Your task to perform on an android device: open chrome privacy settings Image 0: 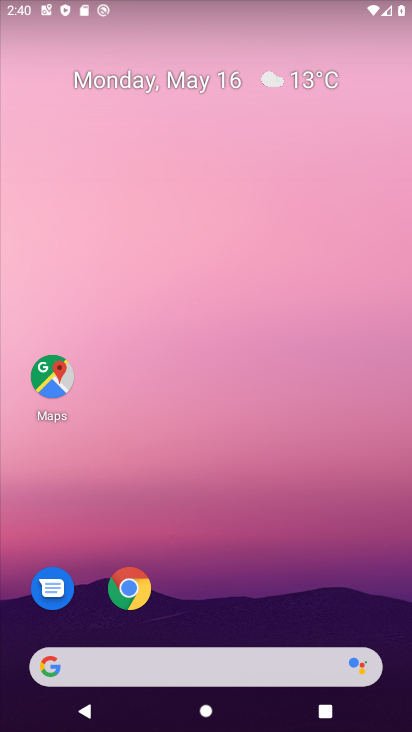
Step 0: drag from (298, 654) to (348, 5)
Your task to perform on an android device: open chrome privacy settings Image 1: 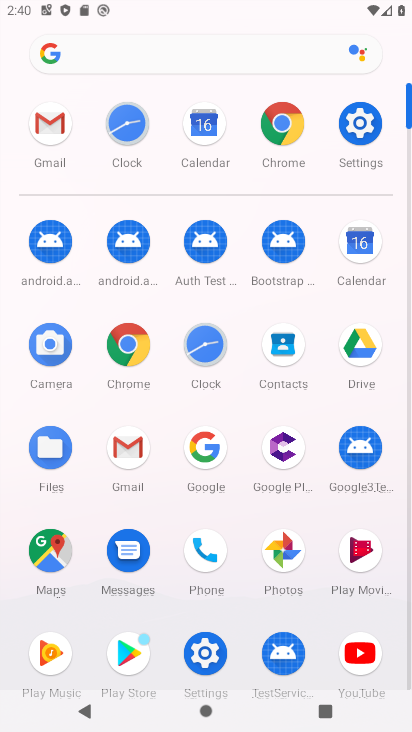
Step 1: click (360, 111)
Your task to perform on an android device: open chrome privacy settings Image 2: 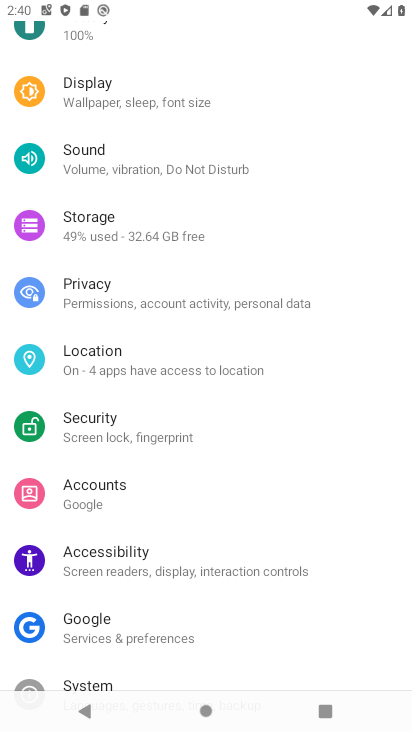
Step 2: press home button
Your task to perform on an android device: open chrome privacy settings Image 3: 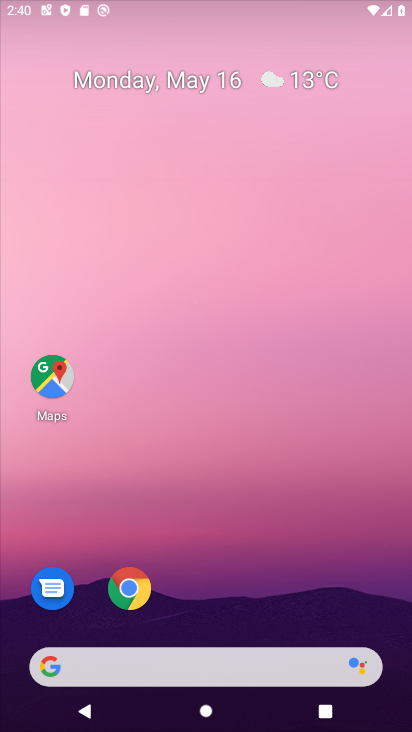
Step 3: drag from (270, 565) to (255, 1)
Your task to perform on an android device: open chrome privacy settings Image 4: 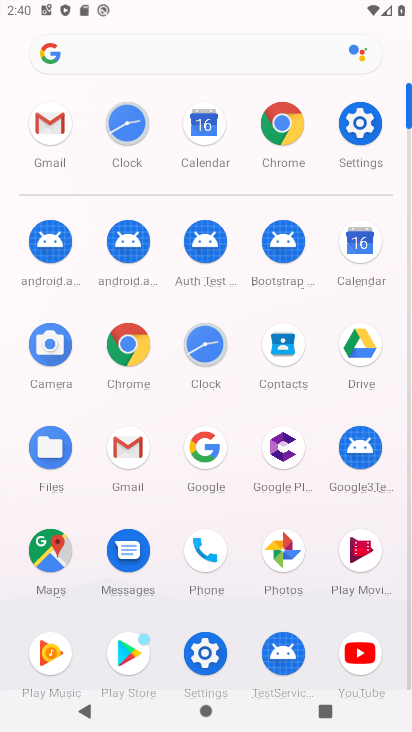
Step 4: click (133, 364)
Your task to perform on an android device: open chrome privacy settings Image 5: 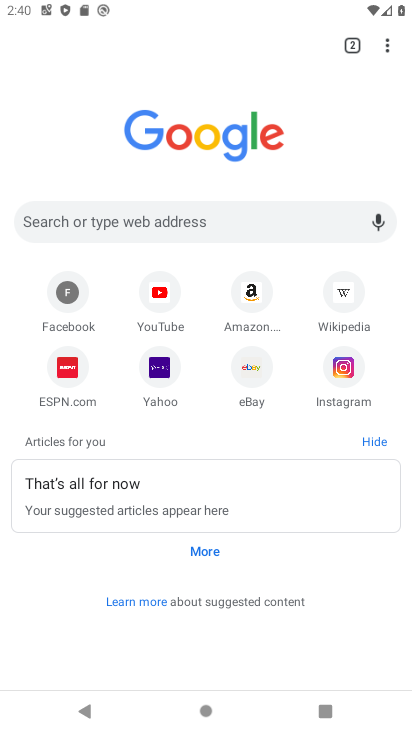
Step 5: click (386, 39)
Your task to perform on an android device: open chrome privacy settings Image 6: 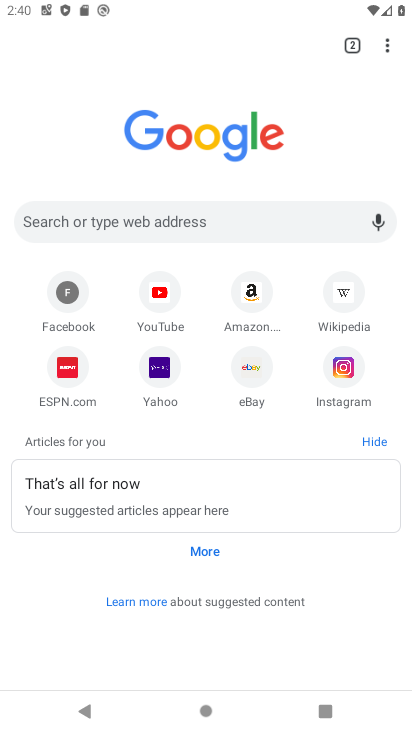
Step 6: click (389, 47)
Your task to perform on an android device: open chrome privacy settings Image 7: 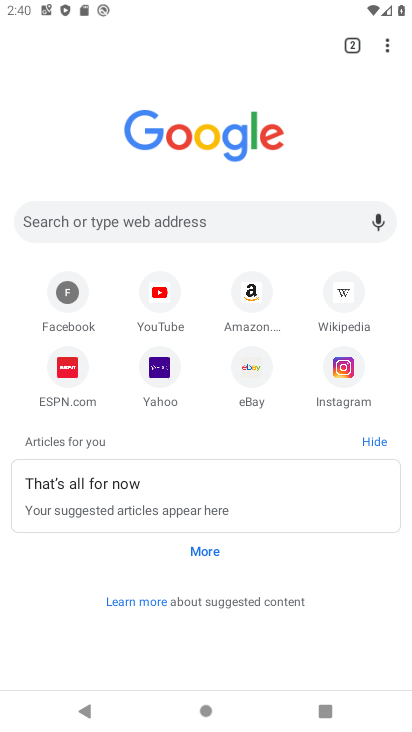
Step 7: drag from (383, 42) to (320, 432)
Your task to perform on an android device: open chrome privacy settings Image 8: 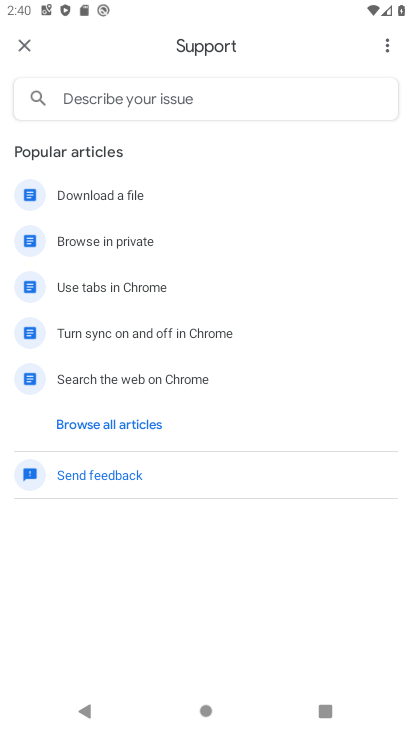
Step 8: click (23, 45)
Your task to perform on an android device: open chrome privacy settings Image 9: 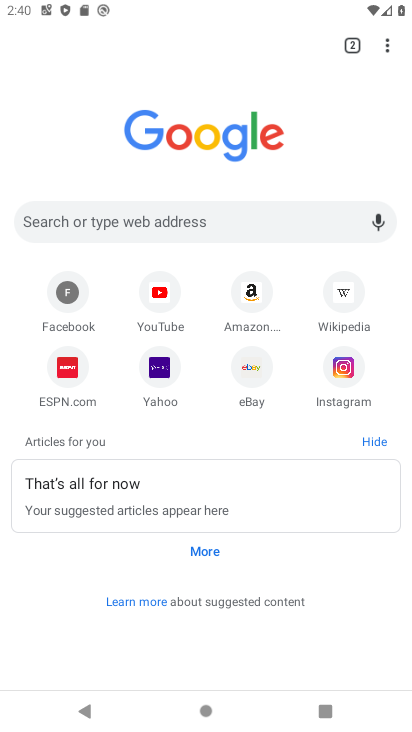
Step 9: click (390, 42)
Your task to perform on an android device: open chrome privacy settings Image 10: 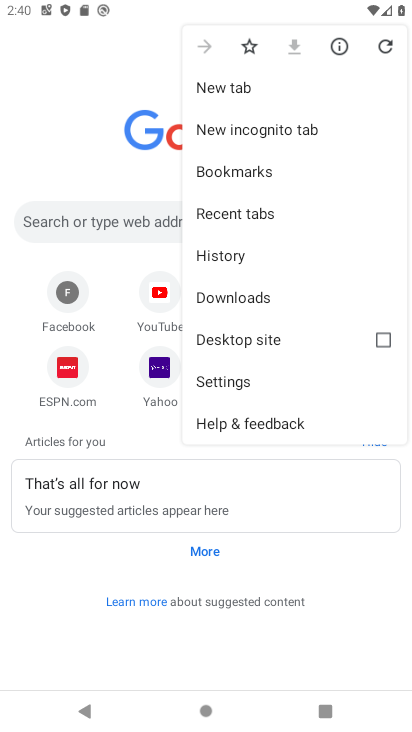
Step 10: click (264, 378)
Your task to perform on an android device: open chrome privacy settings Image 11: 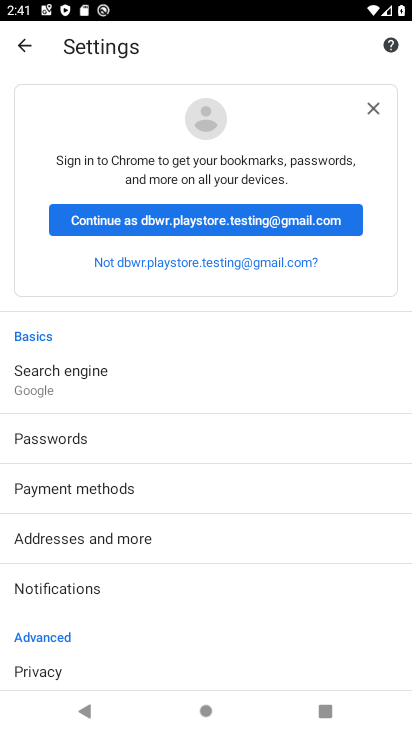
Step 11: drag from (192, 645) to (237, 138)
Your task to perform on an android device: open chrome privacy settings Image 12: 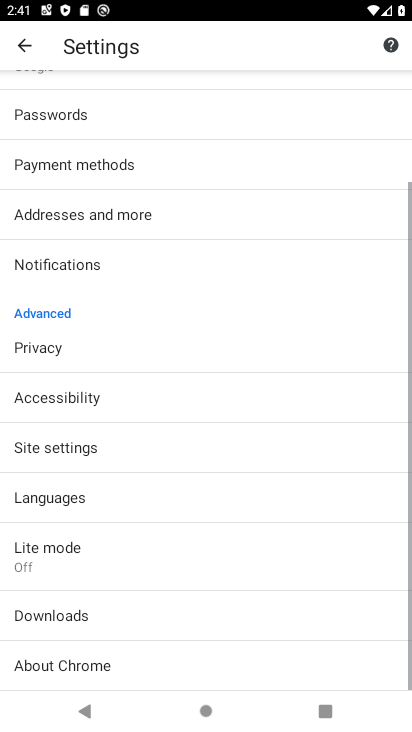
Step 12: click (48, 346)
Your task to perform on an android device: open chrome privacy settings Image 13: 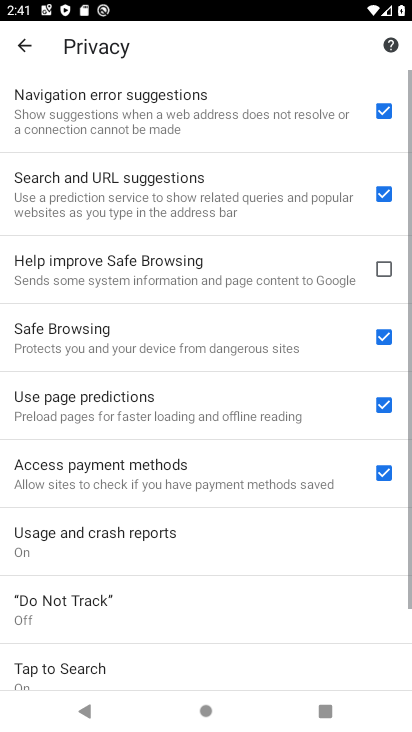
Step 13: task complete